Your task to perform on an android device: turn on improve location accuracy Image 0: 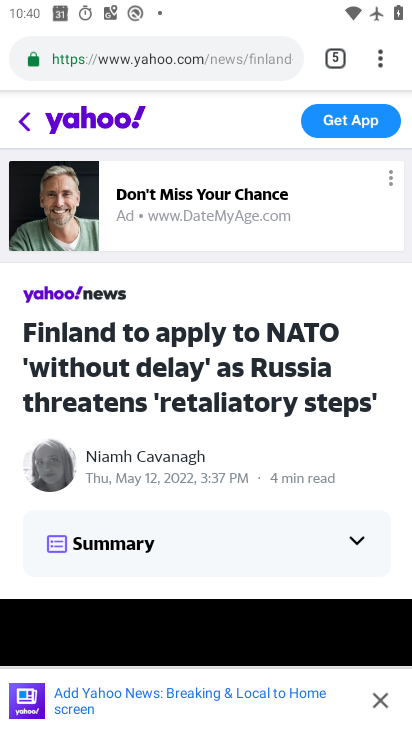
Step 0: press back button
Your task to perform on an android device: turn on improve location accuracy Image 1: 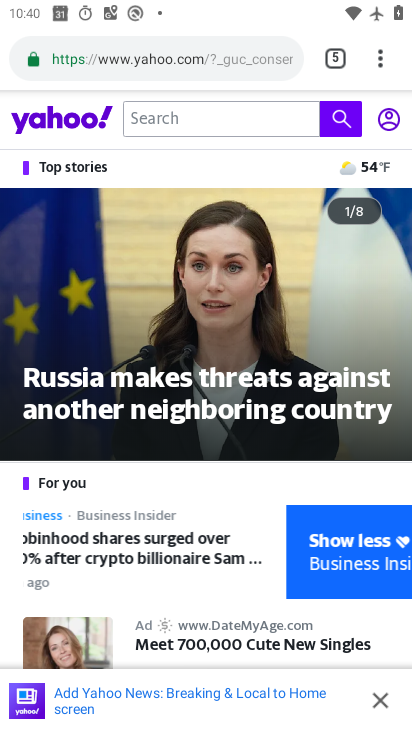
Step 1: press home button
Your task to perform on an android device: turn on improve location accuracy Image 2: 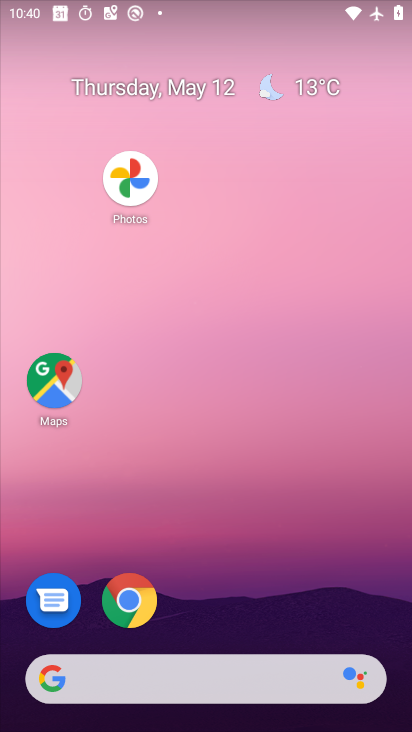
Step 2: drag from (304, 592) to (18, 174)
Your task to perform on an android device: turn on improve location accuracy Image 3: 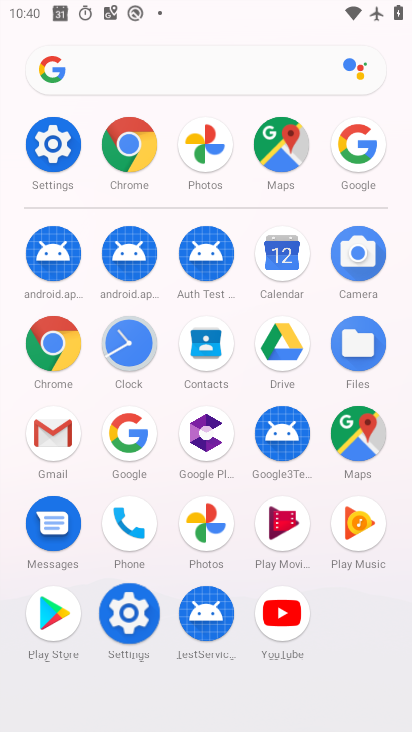
Step 3: click (59, 139)
Your task to perform on an android device: turn on improve location accuracy Image 4: 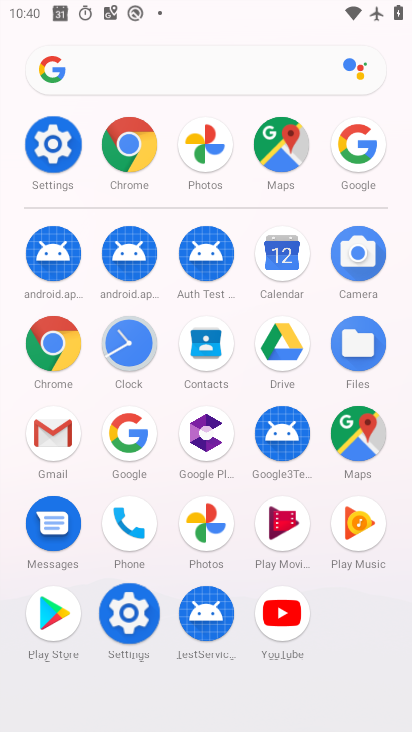
Step 4: click (59, 139)
Your task to perform on an android device: turn on improve location accuracy Image 5: 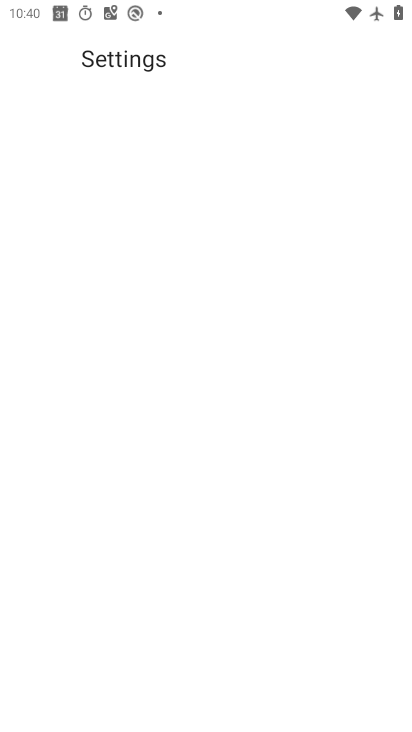
Step 5: click (59, 139)
Your task to perform on an android device: turn on improve location accuracy Image 6: 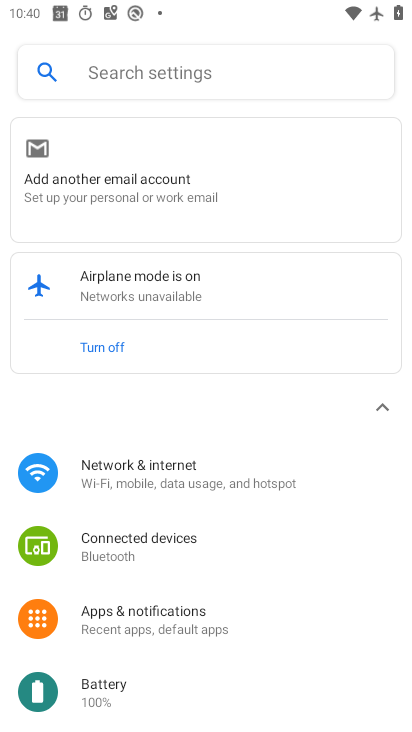
Step 6: drag from (168, 592) to (173, 296)
Your task to perform on an android device: turn on improve location accuracy Image 7: 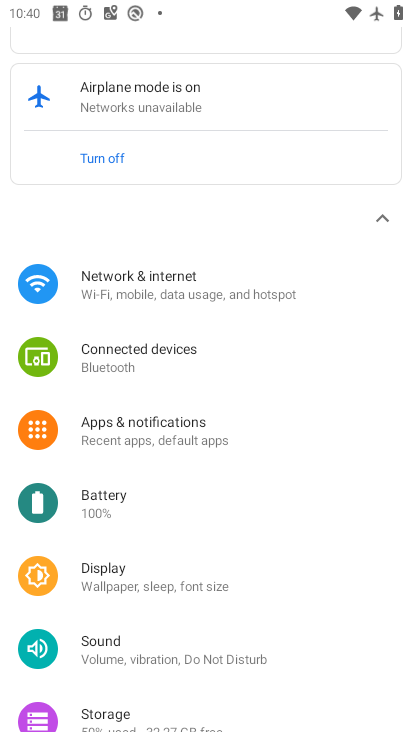
Step 7: drag from (148, 586) to (134, 283)
Your task to perform on an android device: turn on improve location accuracy Image 8: 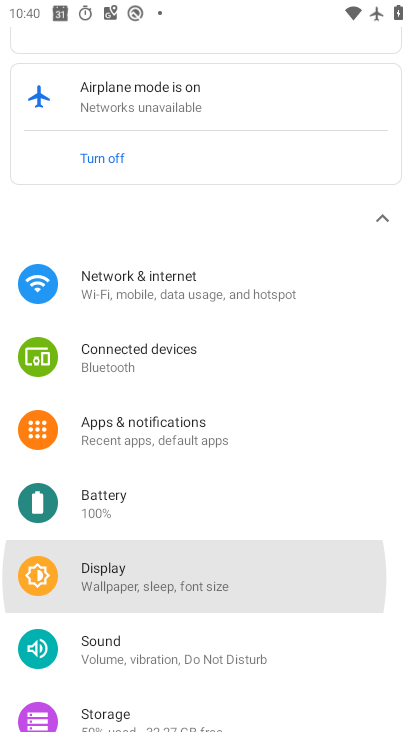
Step 8: drag from (189, 533) to (196, 179)
Your task to perform on an android device: turn on improve location accuracy Image 9: 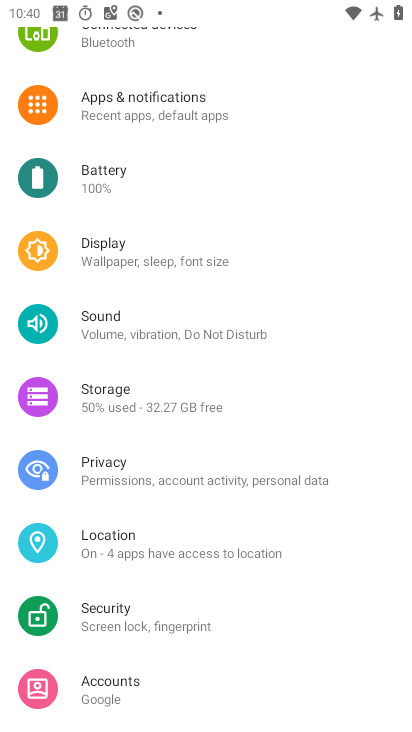
Step 9: drag from (261, 547) to (210, 259)
Your task to perform on an android device: turn on improve location accuracy Image 10: 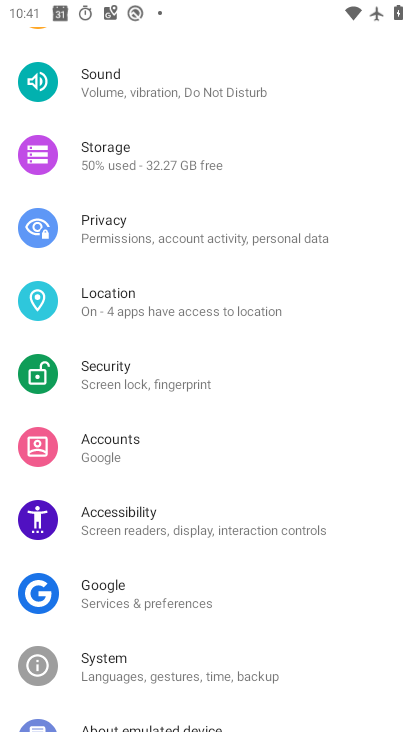
Step 10: click (145, 300)
Your task to perform on an android device: turn on improve location accuracy Image 11: 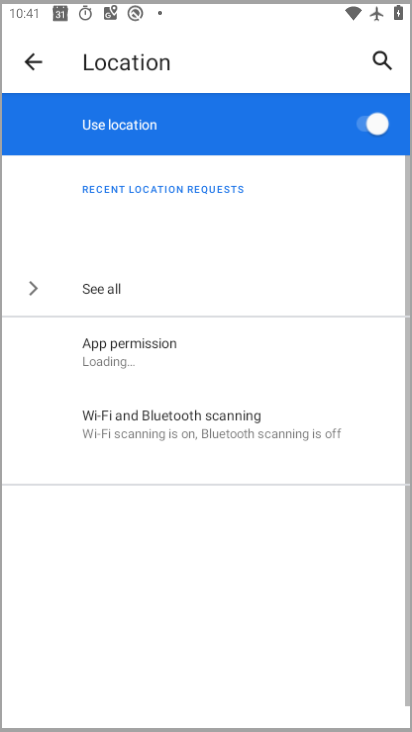
Step 11: click (147, 302)
Your task to perform on an android device: turn on improve location accuracy Image 12: 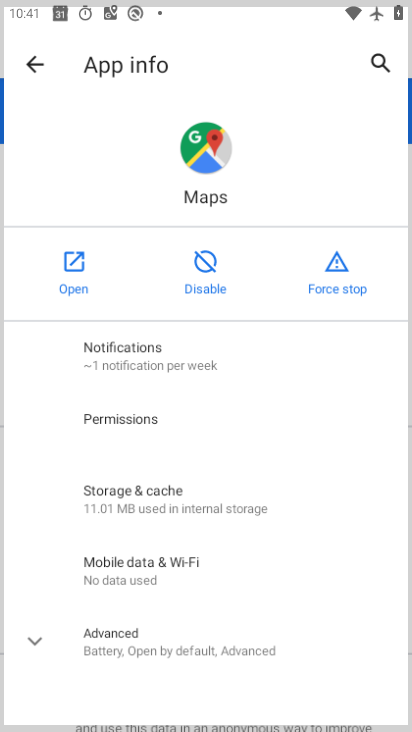
Step 12: click (172, 607)
Your task to perform on an android device: turn on improve location accuracy Image 13: 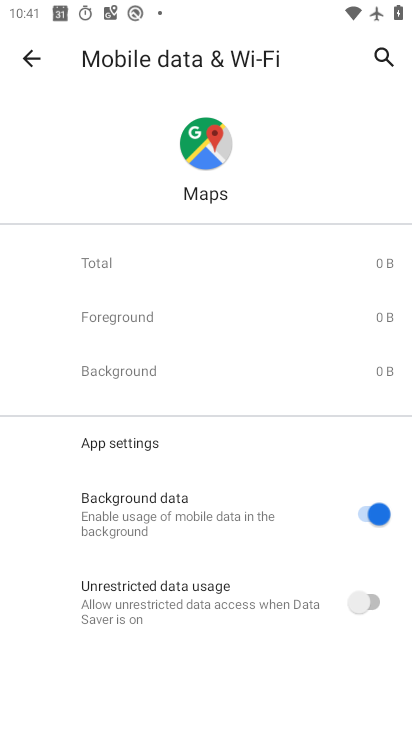
Step 13: drag from (184, 624) to (160, 180)
Your task to perform on an android device: turn on improve location accuracy Image 14: 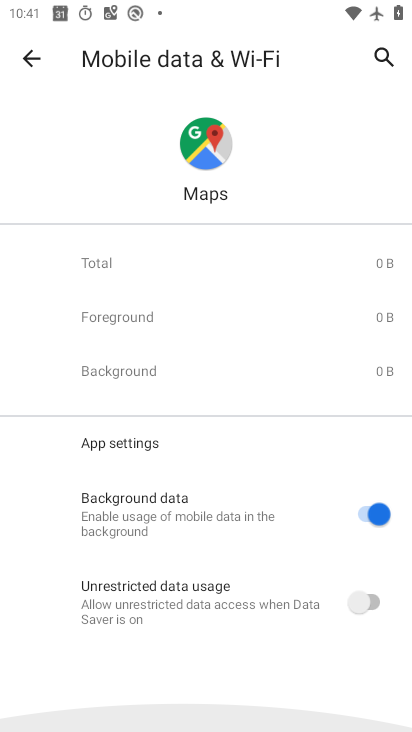
Step 14: drag from (214, 456) to (202, 111)
Your task to perform on an android device: turn on improve location accuracy Image 15: 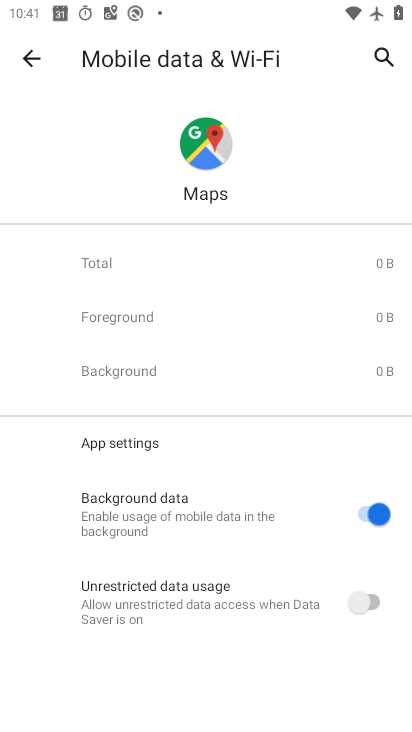
Step 15: drag from (175, 493) to (177, 62)
Your task to perform on an android device: turn on improve location accuracy Image 16: 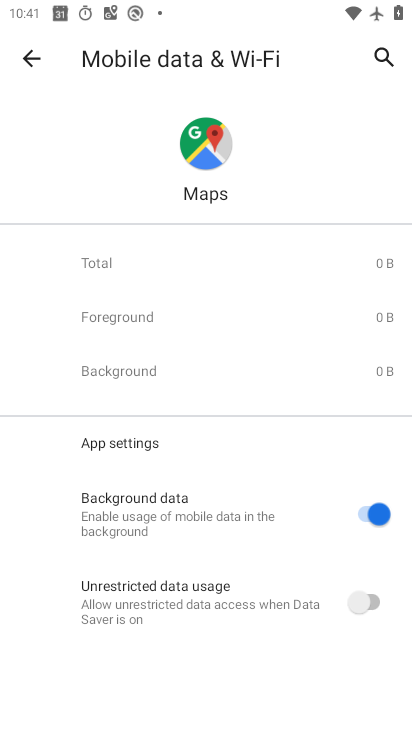
Step 16: click (26, 53)
Your task to perform on an android device: turn on improve location accuracy Image 17: 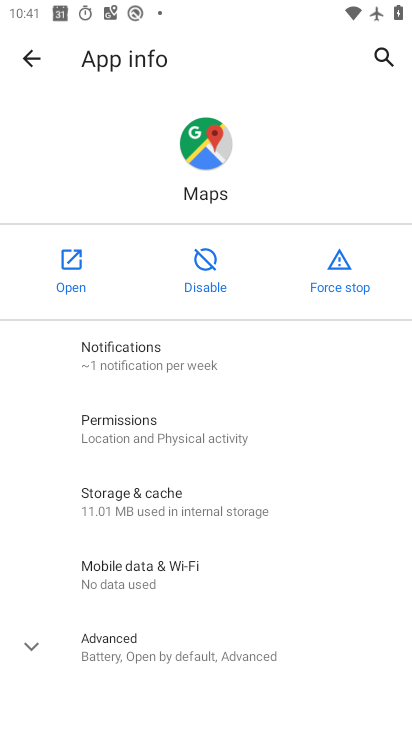
Step 17: click (37, 52)
Your task to perform on an android device: turn on improve location accuracy Image 18: 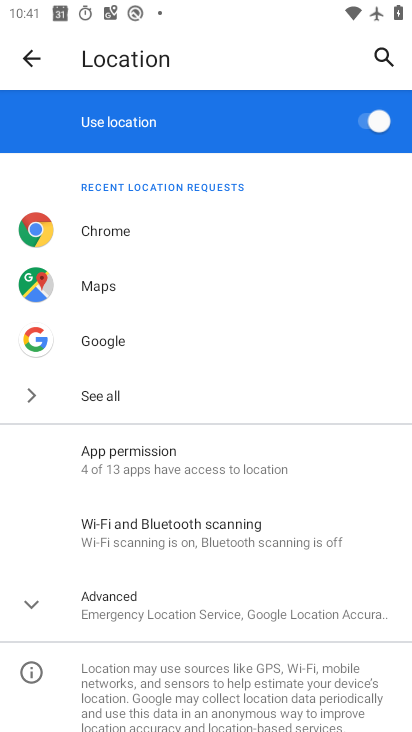
Step 18: click (155, 610)
Your task to perform on an android device: turn on improve location accuracy Image 19: 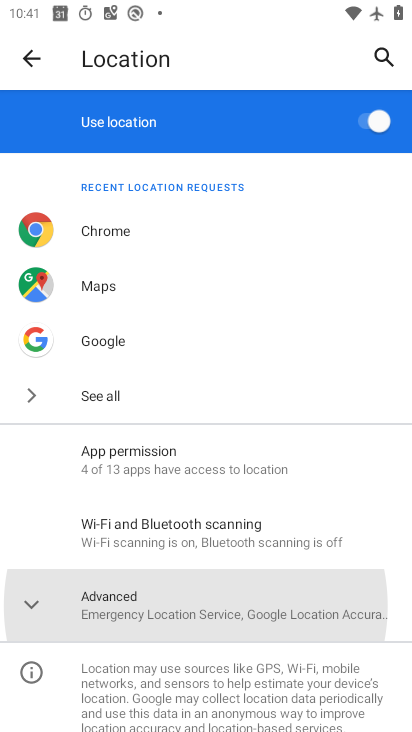
Step 19: click (155, 612)
Your task to perform on an android device: turn on improve location accuracy Image 20: 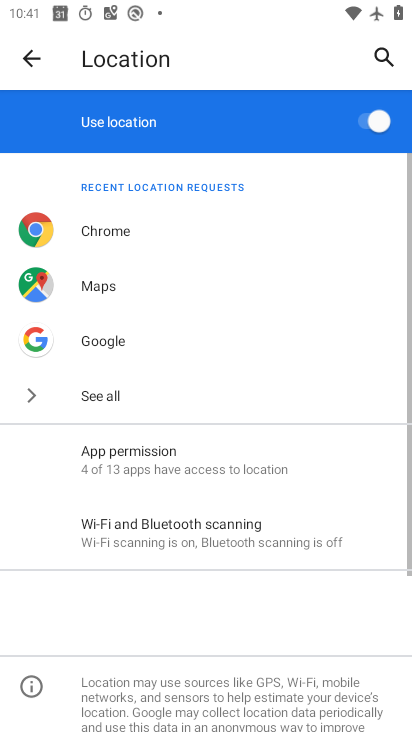
Step 20: click (155, 613)
Your task to perform on an android device: turn on improve location accuracy Image 21: 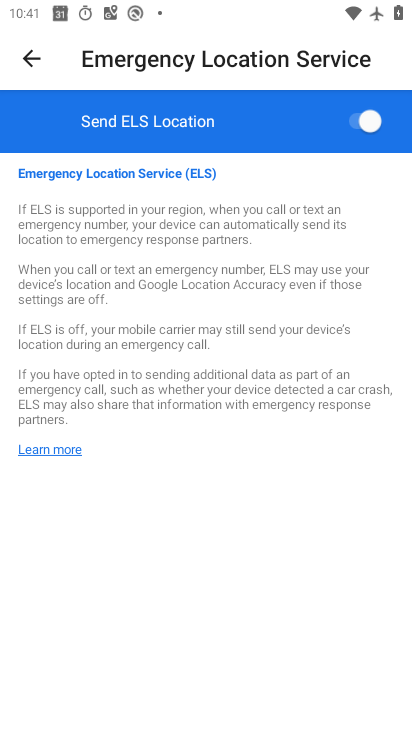
Step 21: click (30, 54)
Your task to perform on an android device: turn on improve location accuracy Image 22: 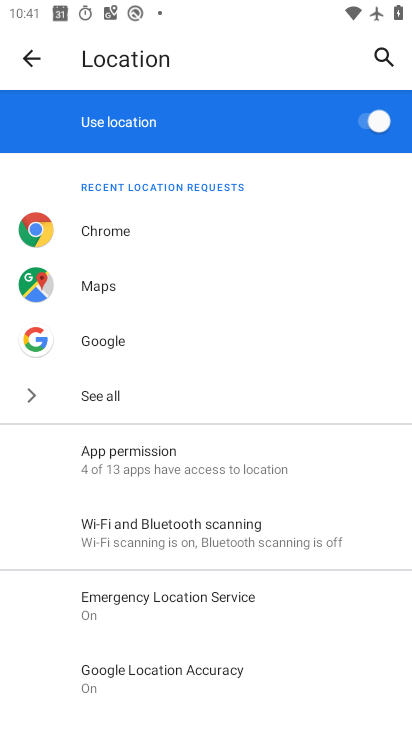
Step 22: click (115, 668)
Your task to perform on an android device: turn on improve location accuracy Image 23: 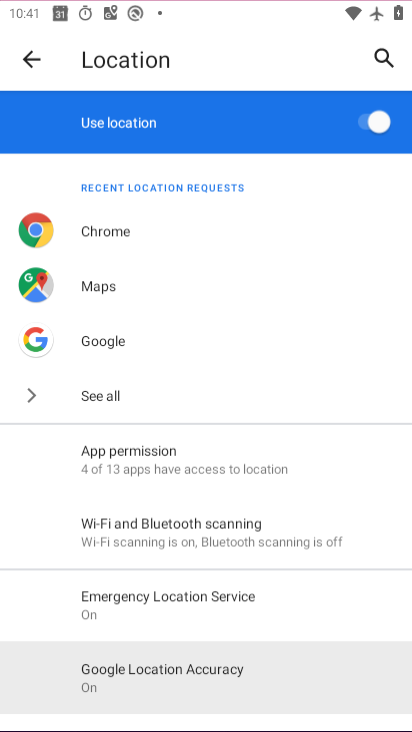
Step 23: click (115, 668)
Your task to perform on an android device: turn on improve location accuracy Image 24: 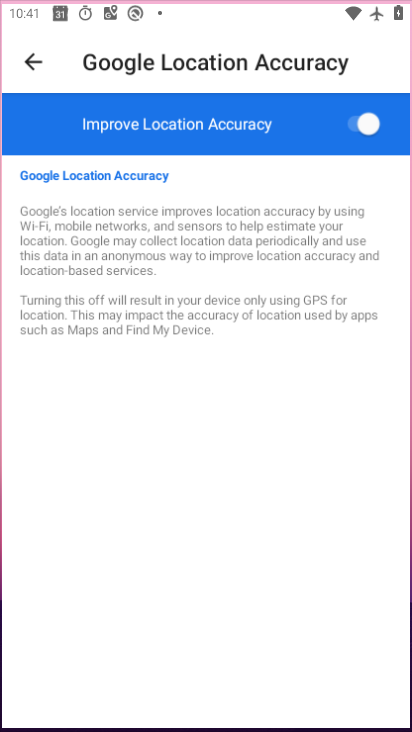
Step 24: click (114, 670)
Your task to perform on an android device: turn on improve location accuracy Image 25: 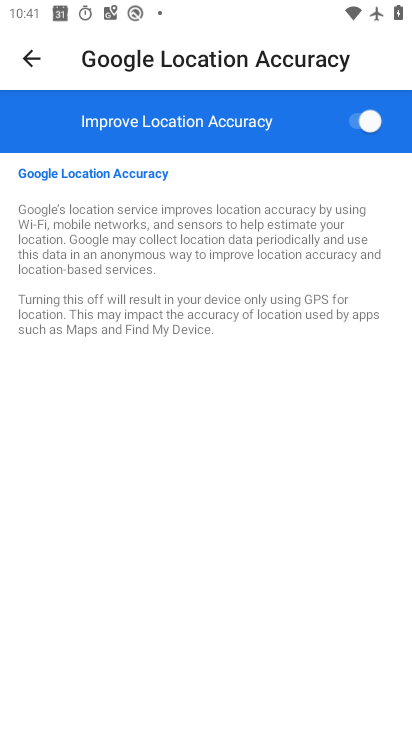
Step 25: task complete